Your task to perform on an android device: toggle wifi Image 0: 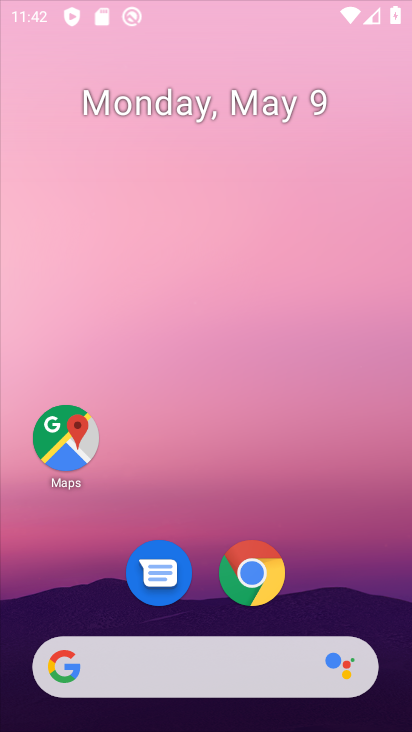
Step 0: click (330, 31)
Your task to perform on an android device: toggle wifi Image 1: 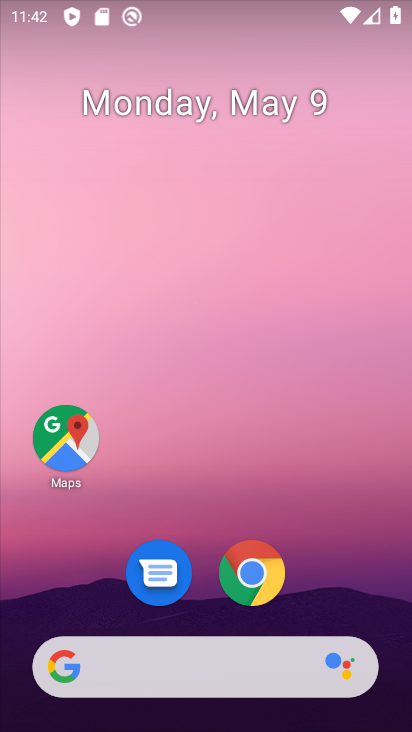
Step 1: drag from (197, 614) to (260, 86)
Your task to perform on an android device: toggle wifi Image 2: 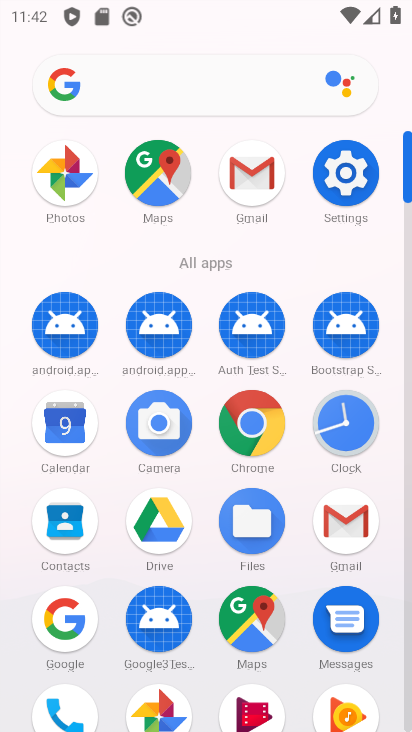
Step 2: click (344, 170)
Your task to perform on an android device: toggle wifi Image 3: 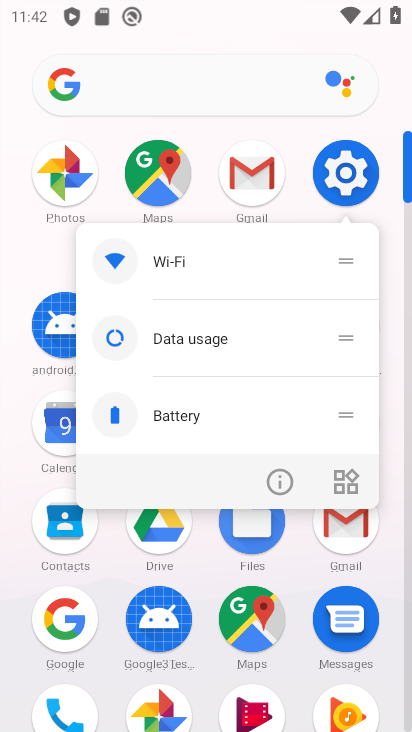
Step 3: click (275, 481)
Your task to perform on an android device: toggle wifi Image 4: 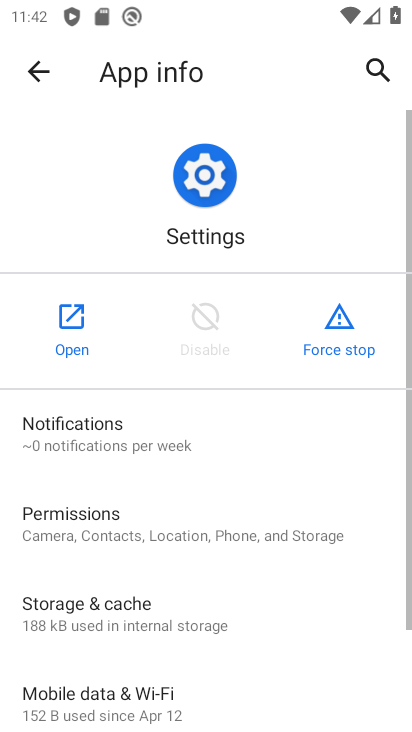
Step 4: click (57, 316)
Your task to perform on an android device: toggle wifi Image 5: 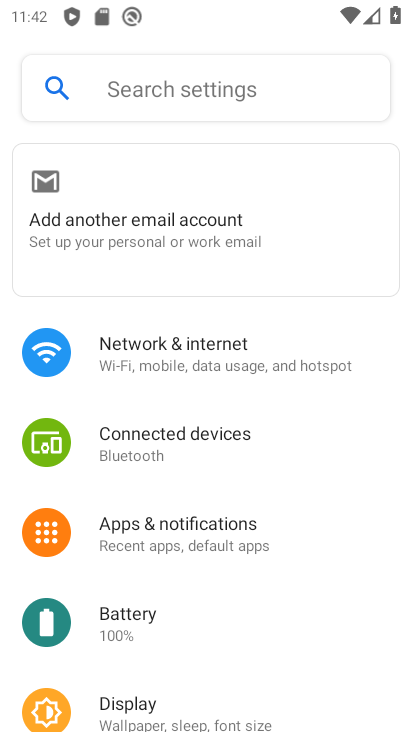
Step 5: drag from (206, 505) to (256, 301)
Your task to perform on an android device: toggle wifi Image 6: 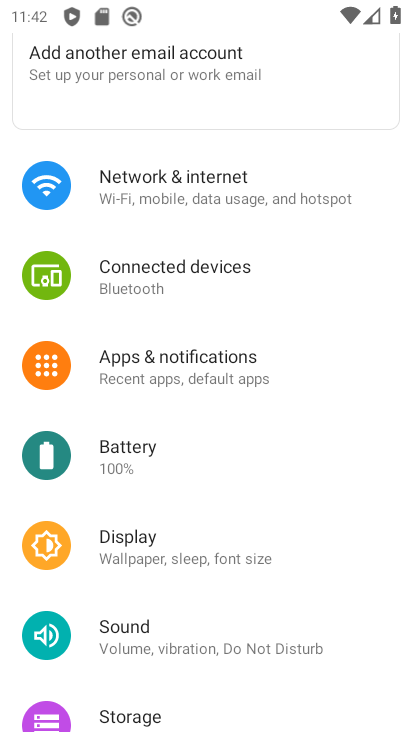
Step 6: drag from (197, 650) to (262, 329)
Your task to perform on an android device: toggle wifi Image 7: 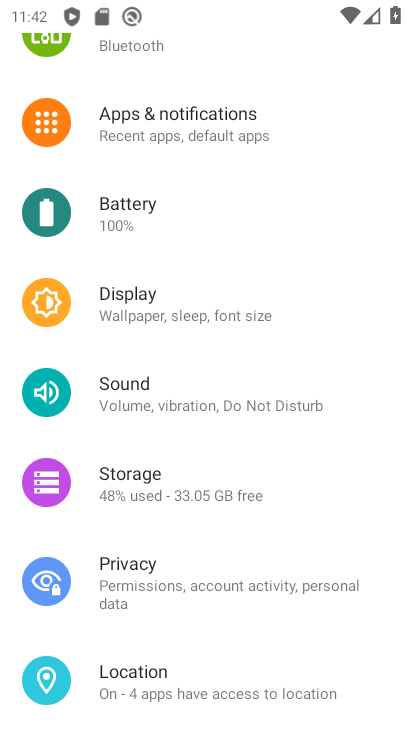
Step 7: drag from (241, 194) to (212, 627)
Your task to perform on an android device: toggle wifi Image 8: 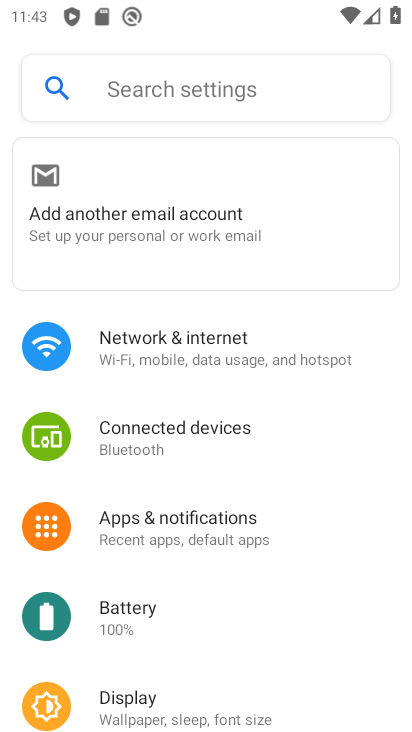
Step 8: click (215, 336)
Your task to perform on an android device: toggle wifi Image 9: 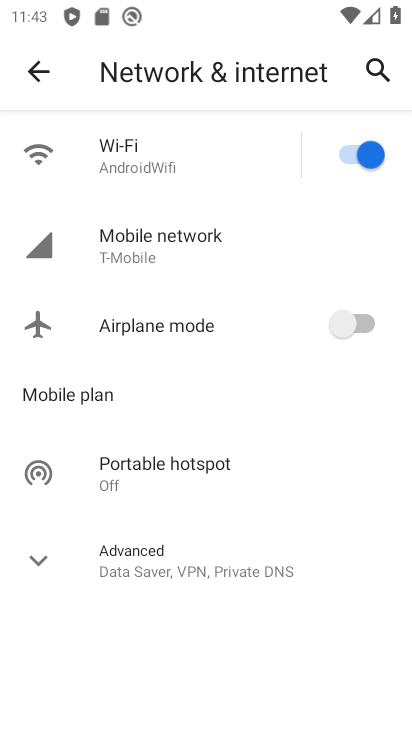
Step 9: click (362, 162)
Your task to perform on an android device: toggle wifi Image 10: 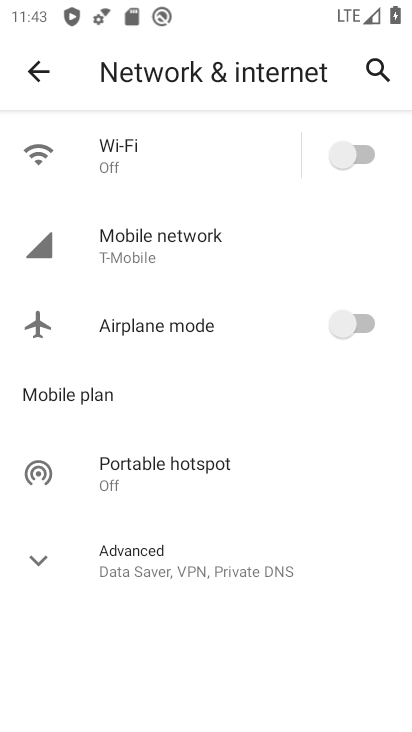
Step 10: task complete